Your task to perform on an android device: What's the weather going to be tomorrow? Image 0: 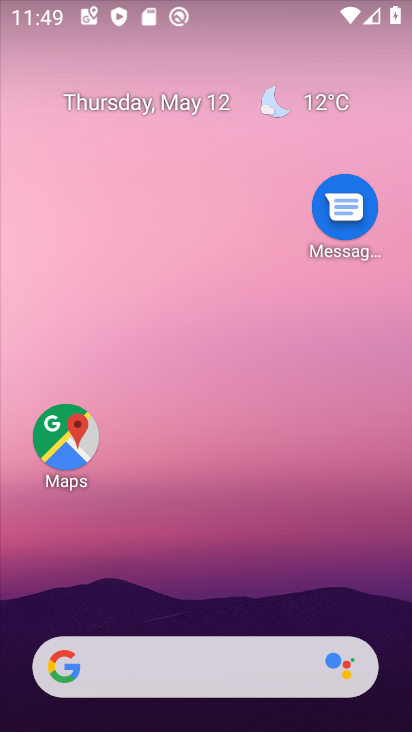
Step 0: press home button
Your task to perform on an android device: What's the weather going to be tomorrow? Image 1: 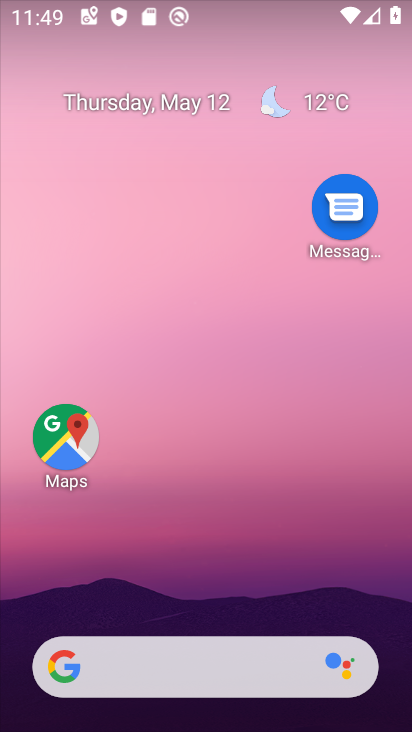
Step 1: click (338, 676)
Your task to perform on an android device: What's the weather going to be tomorrow? Image 2: 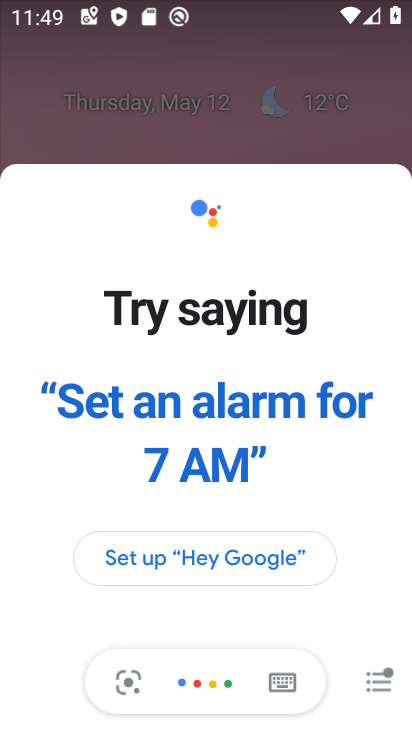
Step 2: click (277, 83)
Your task to perform on an android device: What's the weather going to be tomorrow? Image 3: 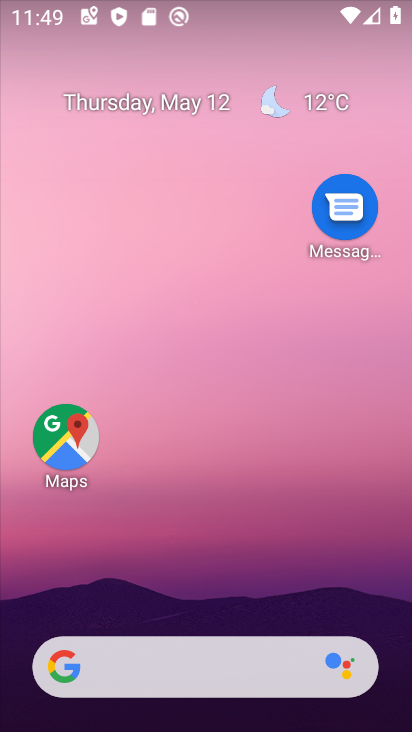
Step 3: drag from (255, 492) to (361, 106)
Your task to perform on an android device: What's the weather going to be tomorrow? Image 4: 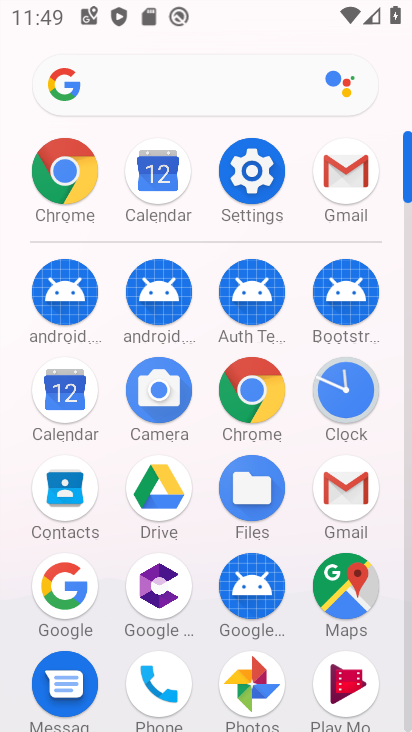
Step 4: drag from (236, 544) to (326, 127)
Your task to perform on an android device: What's the weather going to be tomorrow? Image 5: 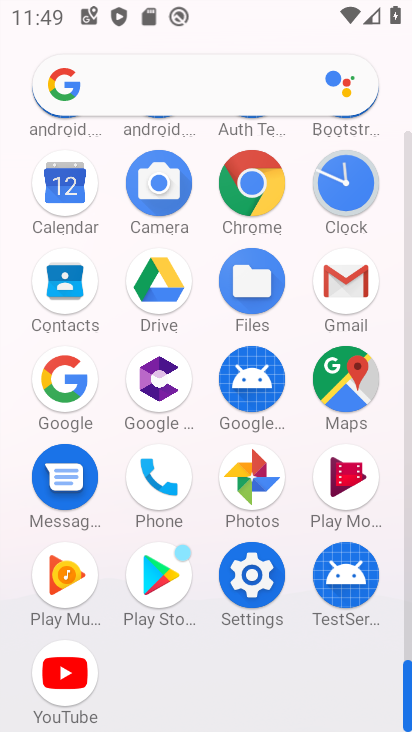
Step 5: click (263, 175)
Your task to perform on an android device: What's the weather going to be tomorrow? Image 6: 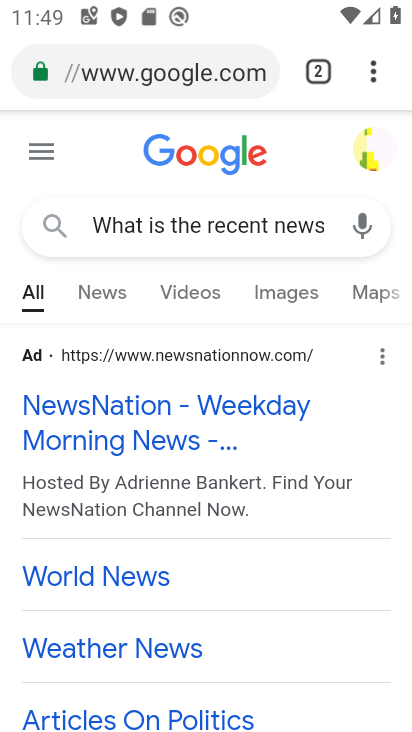
Step 6: click (223, 66)
Your task to perform on an android device: What's the weather going to be tomorrow? Image 7: 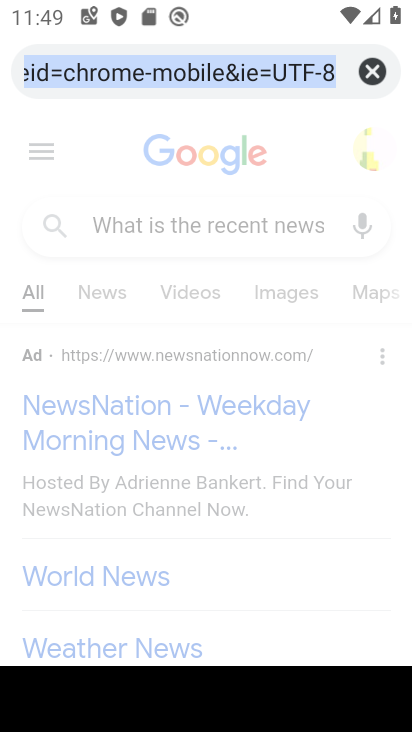
Step 7: click (362, 64)
Your task to perform on an android device: What's the weather going to be tomorrow? Image 8: 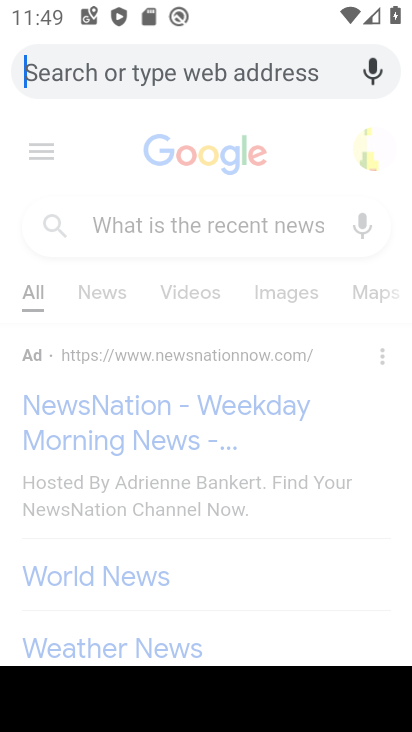
Step 8: type " What's the weather going to be tomorrow?"
Your task to perform on an android device: What's the weather going to be tomorrow? Image 9: 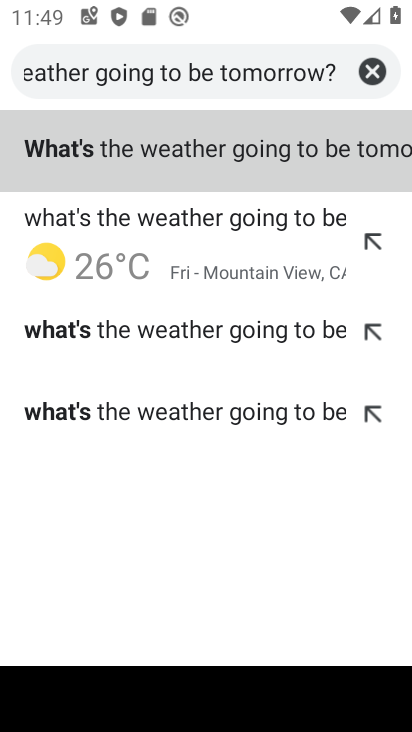
Step 9: click (101, 130)
Your task to perform on an android device: What's the weather going to be tomorrow? Image 10: 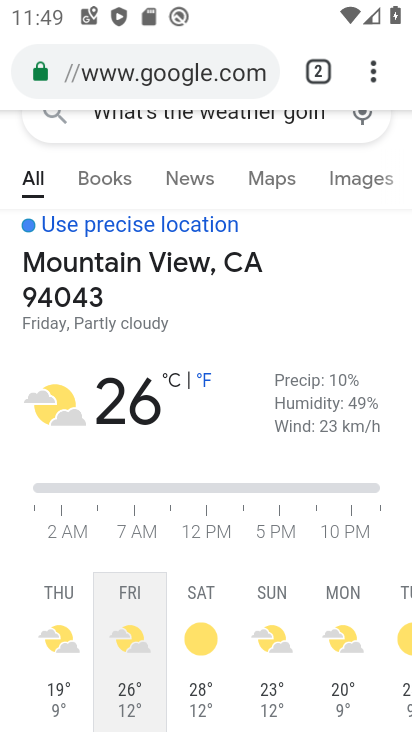
Step 10: task complete